Your task to perform on an android device: Go to Google maps Image 0: 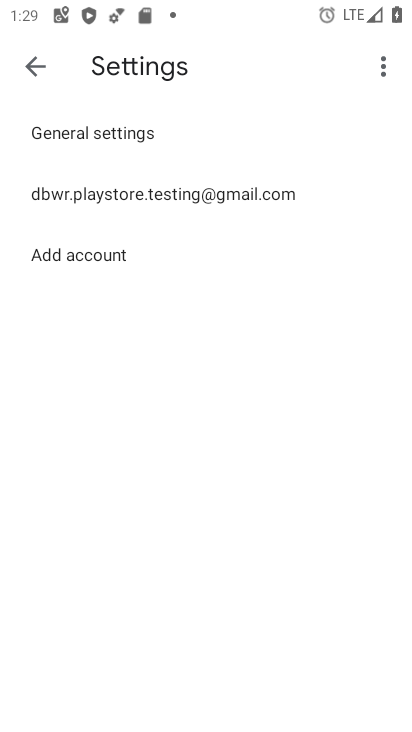
Step 0: press home button
Your task to perform on an android device: Go to Google maps Image 1: 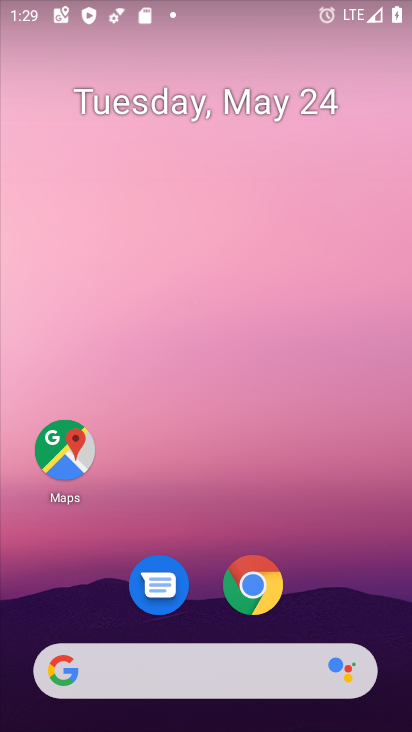
Step 1: click (59, 446)
Your task to perform on an android device: Go to Google maps Image 2: 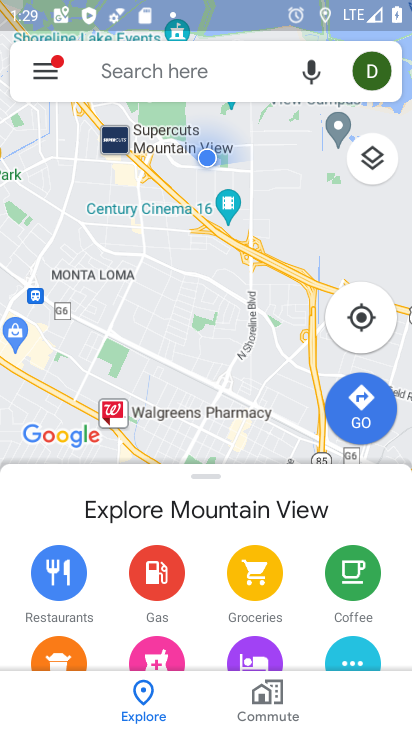
Step 2: task complete